Your task to perform on an android device: open app "Instagram" Image 0: 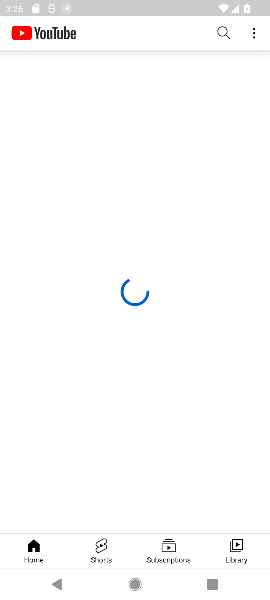
Step 0: press back button
Your task to perform on an android device: open app "Instagram" Image 1: 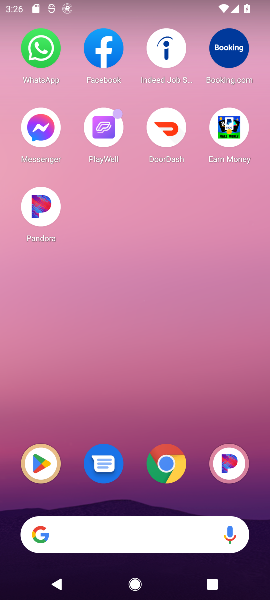
Step 1: click (41, 462)
Your task to perform on an android device: open app "Instagram" Image 2: 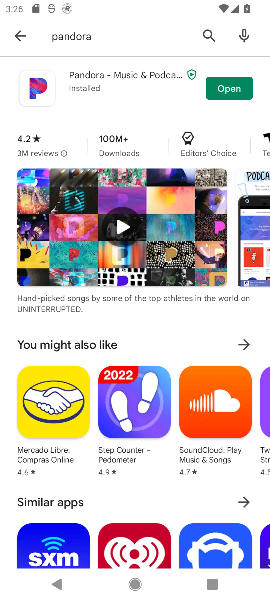
Step 2: click (211, 32)
Your task to perform on an android device: open app "Instagram" Image 3: 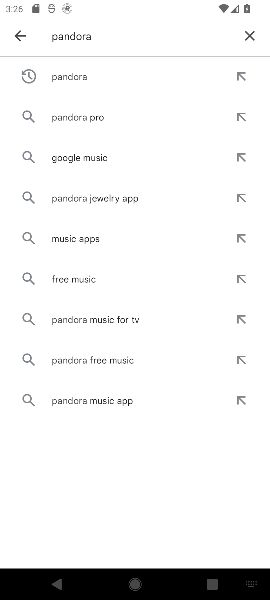
Step 3: click (251, 34)
Your task to perform on an android device: open app "Instagram" Image 4: 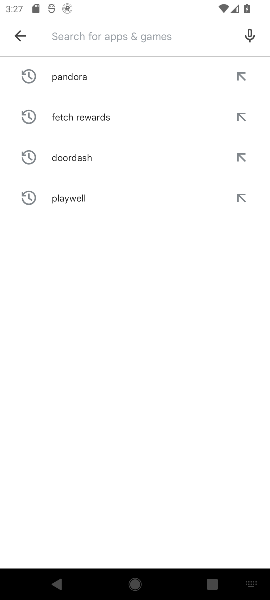
Step 4: type "Instagram"
Your task to perform on an android device: open app "Instagram" Image 5: 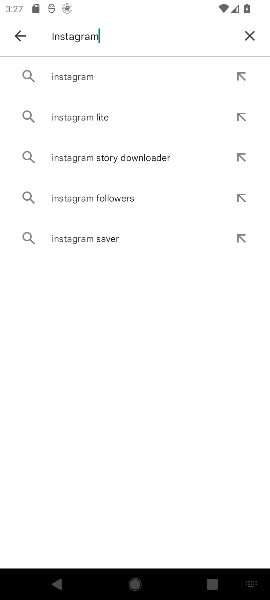
Step 5: click (72, 76)
Your task to perform on an android device: open app "Instagram" Image 6: 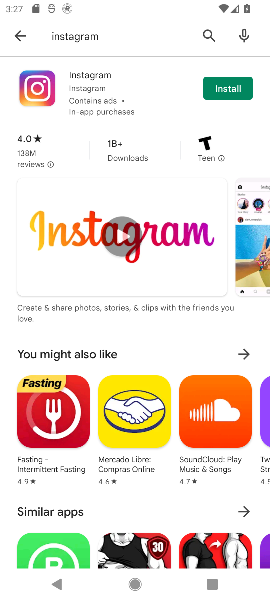
Step 6: click (226, 88)
Your task to perform on an android device: open app "Instagram" Image 7: 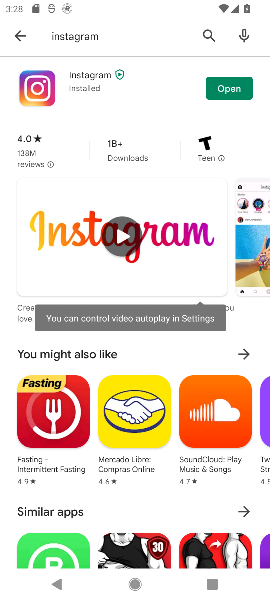
Step 7: click (228, 86)
Your task to perform on an android device: open app "Instagram" Image 8: 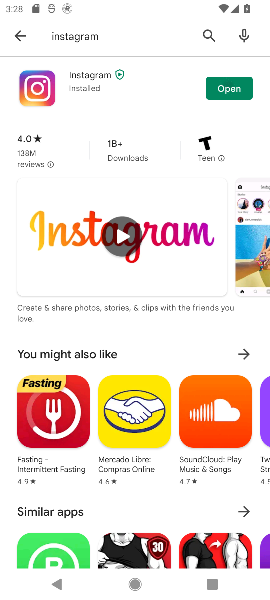
Step 8: click (228, 87)
Your task to perform on an android device: open app "Instagram" Image 9: 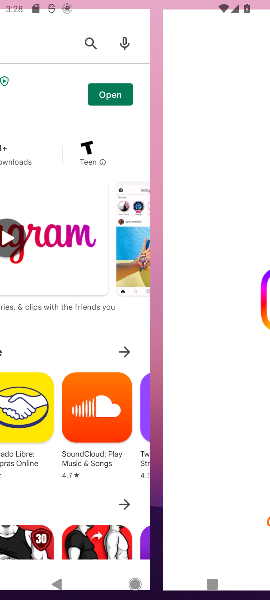
Step 9: click (228, 87)
Your task to perform on an android device: open app "Instagram" Image 10: 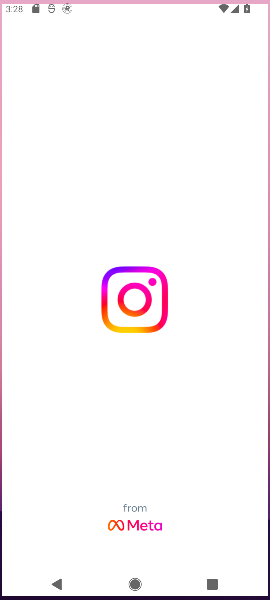
Step 10: click (228, 87)
Your task to perform on an android device: open app "Instagram" Image 11: 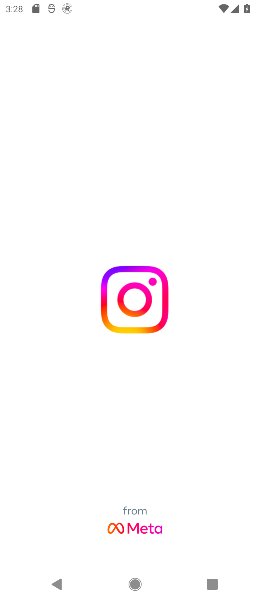
Step 11: click (106, 94)
Your task to perform on an android device: open app "Instagram" Image 12: 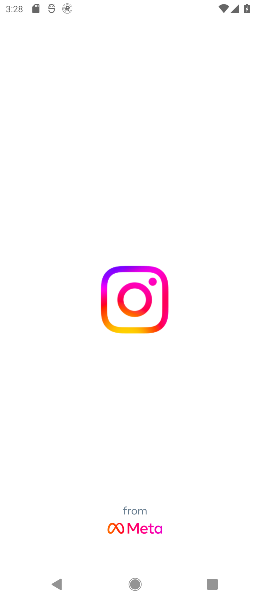
Step 12: click (106, 94)
Your task to perform on an android device: open app "Instagram" Image 13: 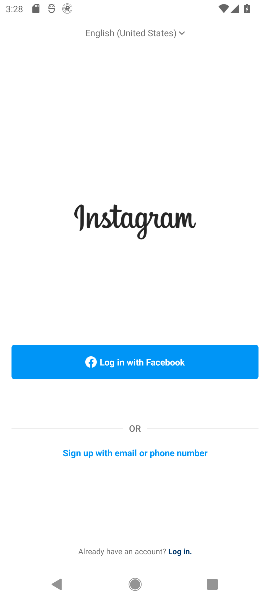
Step 13: task complete